Your task to perform on an android device: open a new tab in the chrome app Image 0: 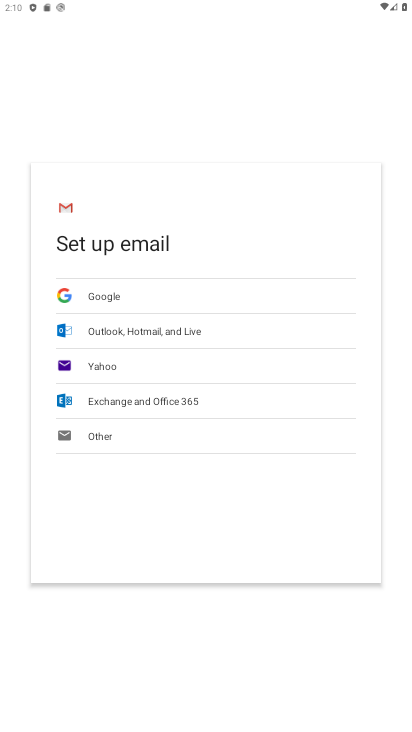
Step 0: press home button
Your task to perform on an android device: open a new tab in the chrome app Image 1: 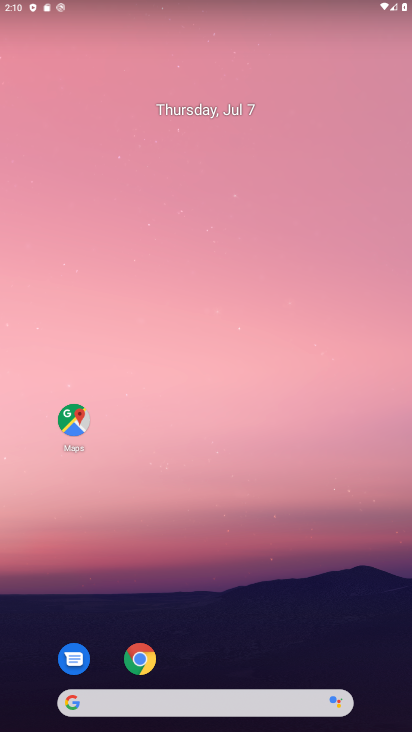
Step 1: click (139, 661)
Your task to perform on an android device: open a new tab in the chrome app Image 2: 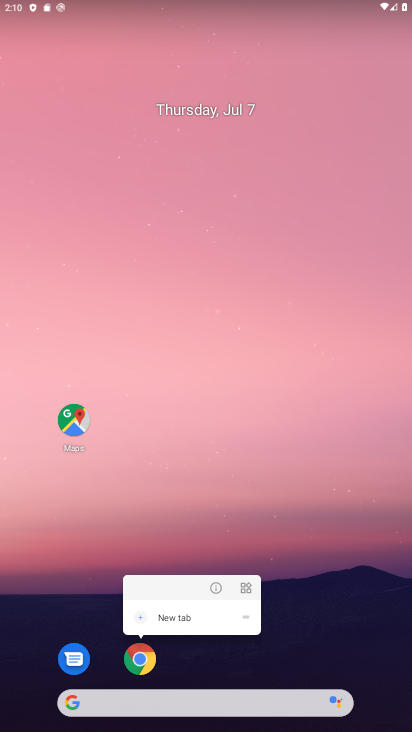
Step 2: click (143, 664)
Your task to perform on an android device: open a new tab in the chrome app Image 3: 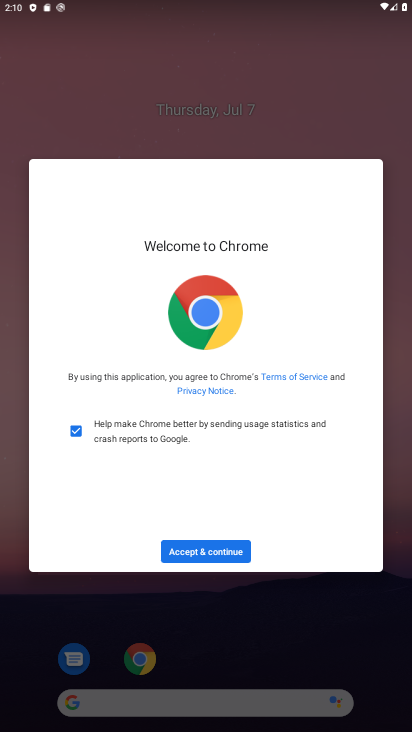
Step 3: click (216, 544)
Your task to perform on an android device: open a new tab in the chrome app Image 4: 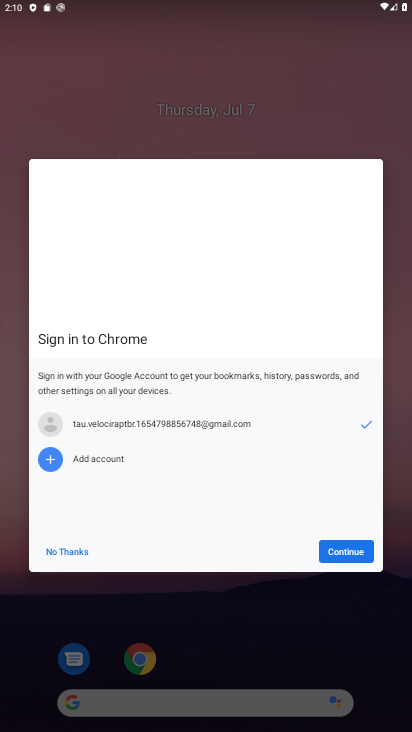
Step 4: click (350, 545)
Your task to perform on an android device: open a new tab in the chrome app Image 5: 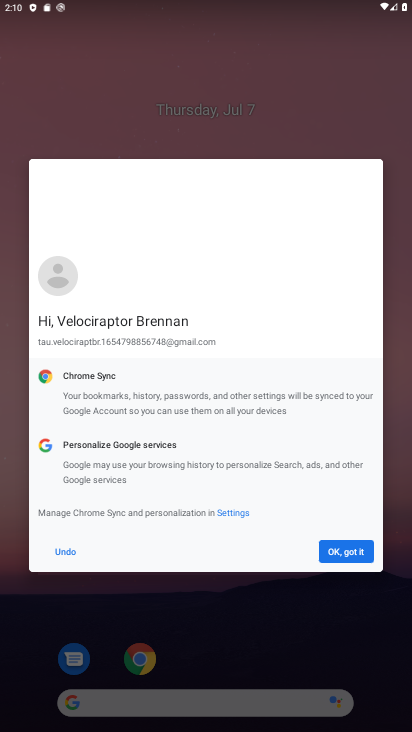
Step 5: click (346, 551)
Your task to perform on an android device: open a new tab in the chrome app Image 6: 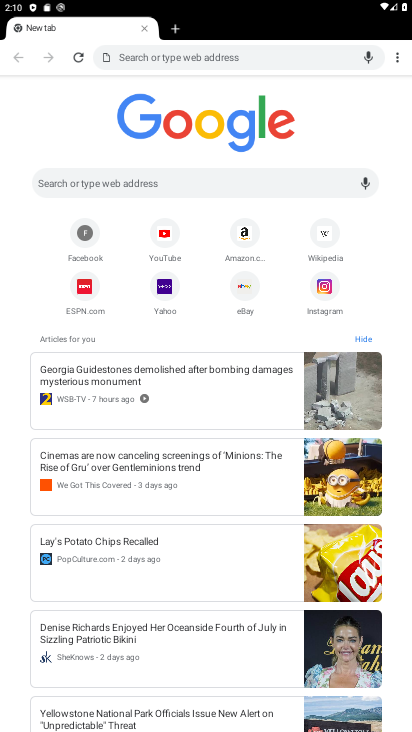
Step 6: click (178, 27)
Your task to perform on an android device: open a new tab in the chrome app Image 7: 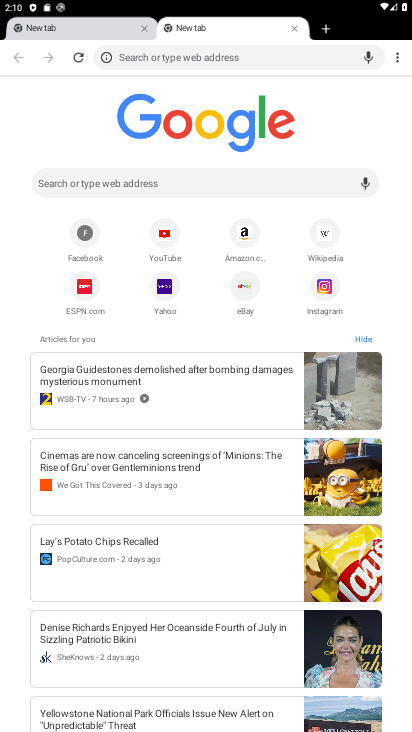
Step 7: task complete